Your task to perform on an android device: toggle show notifications on the lock screen Image 0: 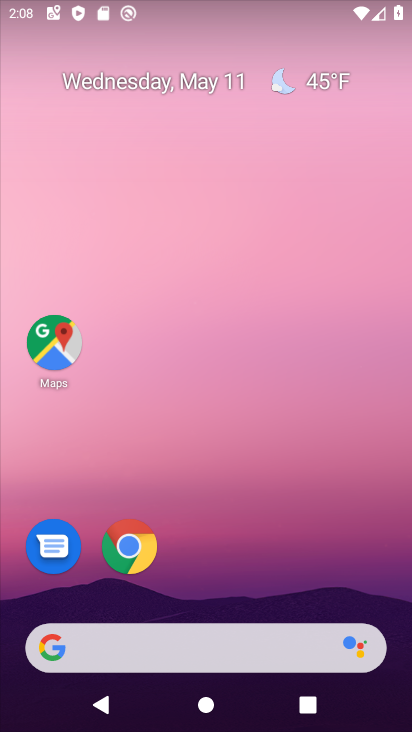
Step 0: click (155, 15)
Your task to perform on an android device: toggle show notifications on the lock screen Image 1: 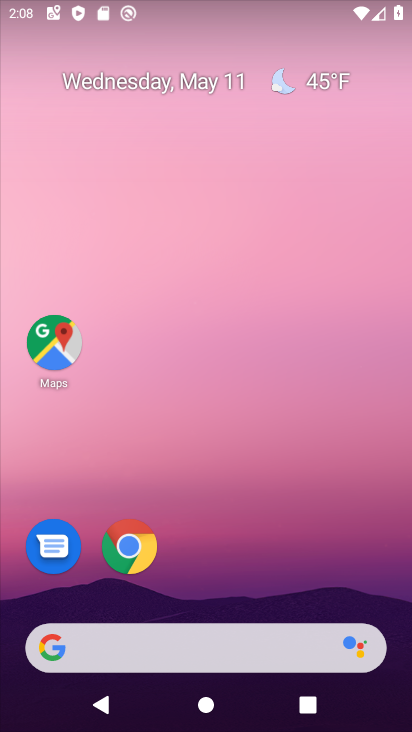
Step 1: drag from (226, 575) to (217, 46)
Your task to perform on an android device: toggle show notifications on the lock screen Image 2: 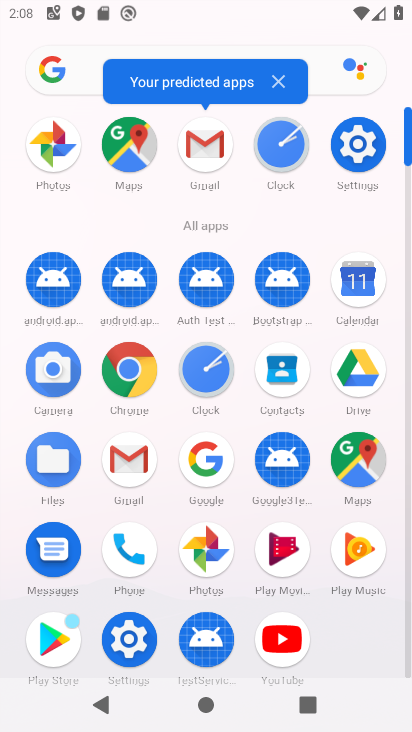
Step 2: click (367, 134)
Your task to perform on an android device: toggle show notifications on the lock screen Image 3: 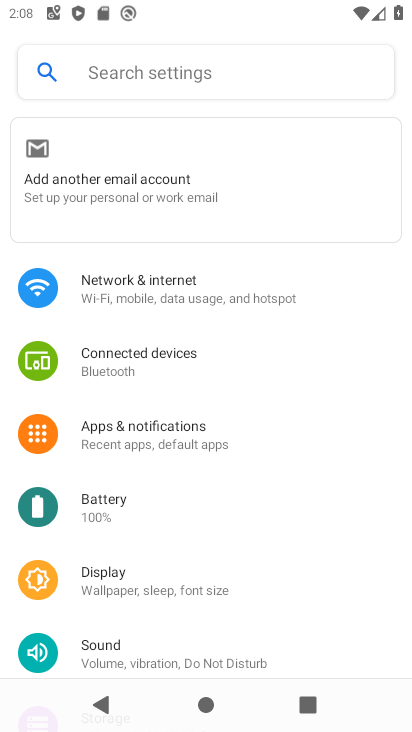
Step 3: click (184, 430)
Your task to perform on an android device: toggle show notifications on the lock screen Image 4: 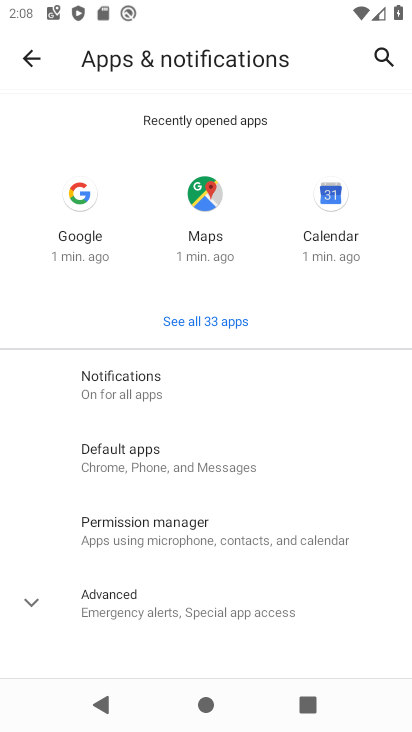
Step 4: click (145, 386)
Your task to perform on an android device: toggle show notifications on the lock screen Image 5: 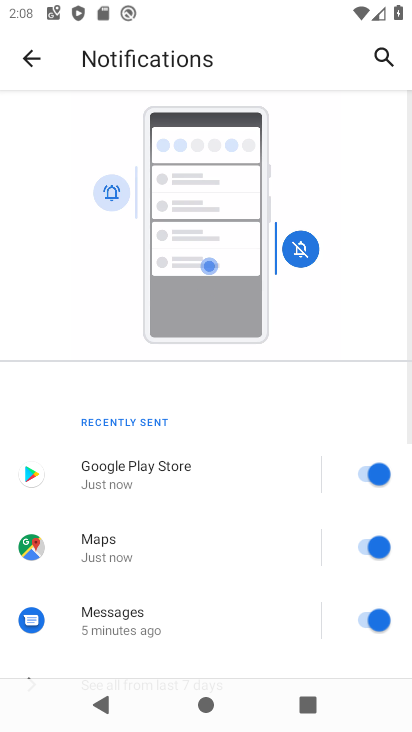
Step 5: drag from (137, 634) to (161, 165)
Your task to perform on an android device: toggle show notifications on the lock screen Image 6: 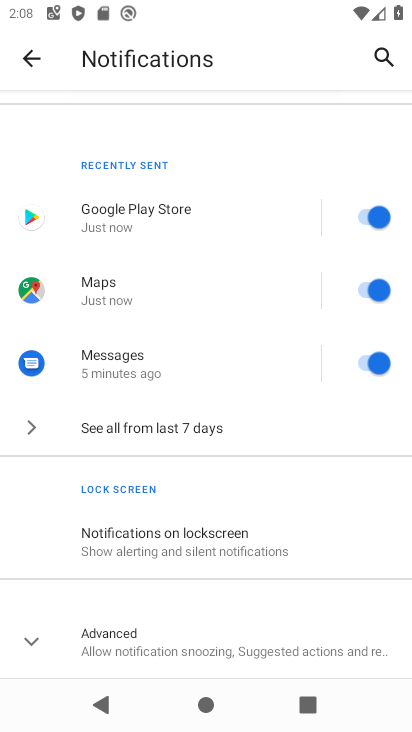
Step 6: click (146, 544)
Your task to perform on an android device: toggle show notifications on the lock screen Image 7: 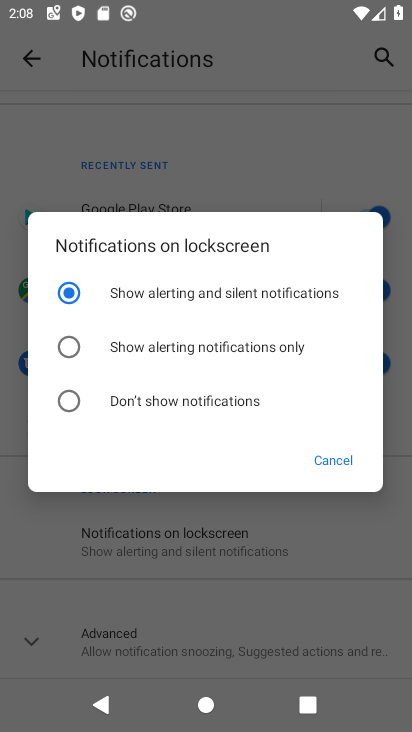
Step 7: click (143, 401)
Your task to perform on an android device: toggle show notifications on the lock screen Image 8: 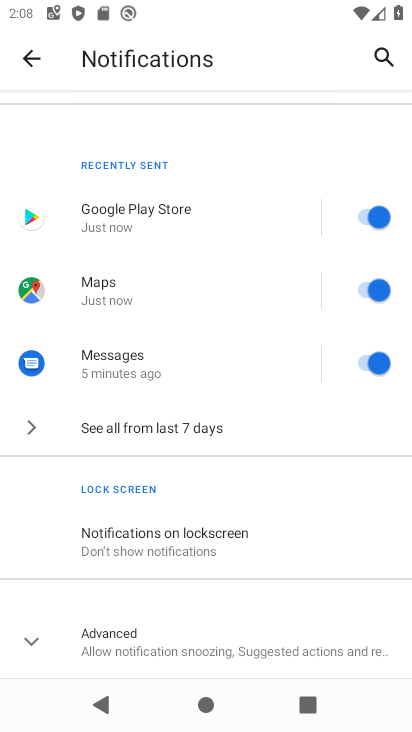
Step 8: task complete